Your task to perform on an android device: turn notification dots on Image 0: 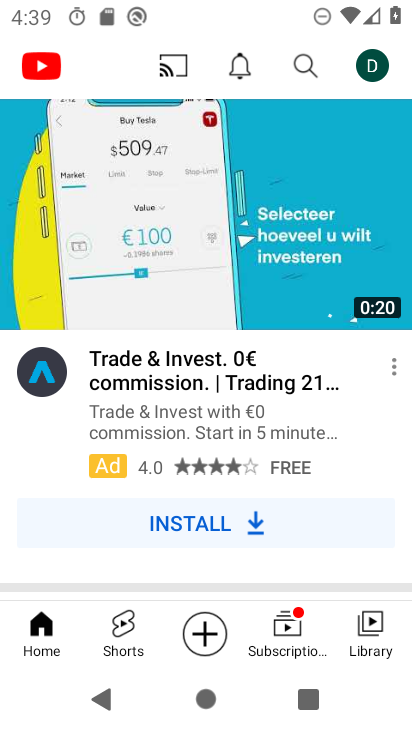
Step 0: press home button
Your task to perform on an android device: turn notification dots on Image 1: 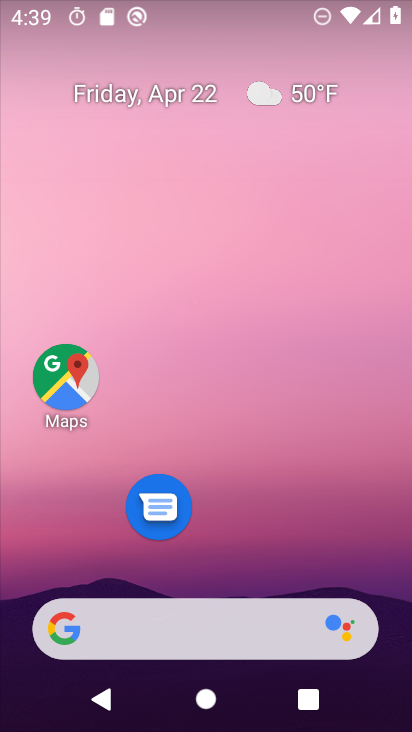
Step 1: drag from (136, 591) to (268, 61)
Your task to perform on an android device: turn notification dots on Image 2: 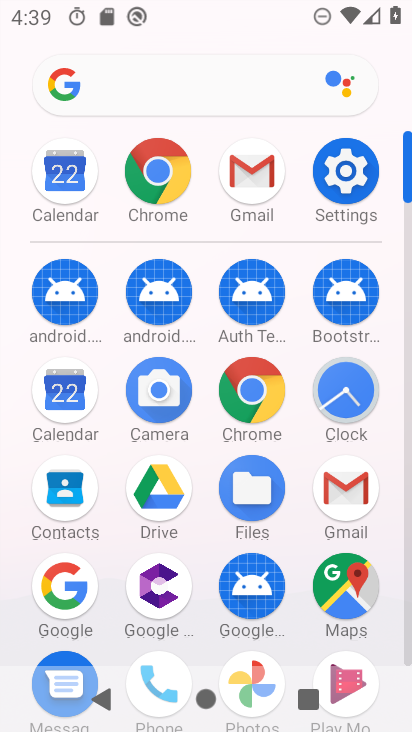
Step 2: click (329, 167)
Your task to perform on an android device: turn notification dots on Image 3: 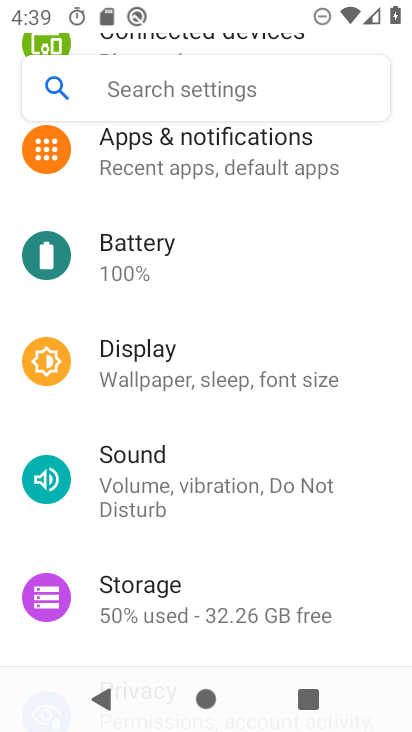
Step 3: click (213, 158)
Your task to perform on an android device: turn notification dots on Image 4: 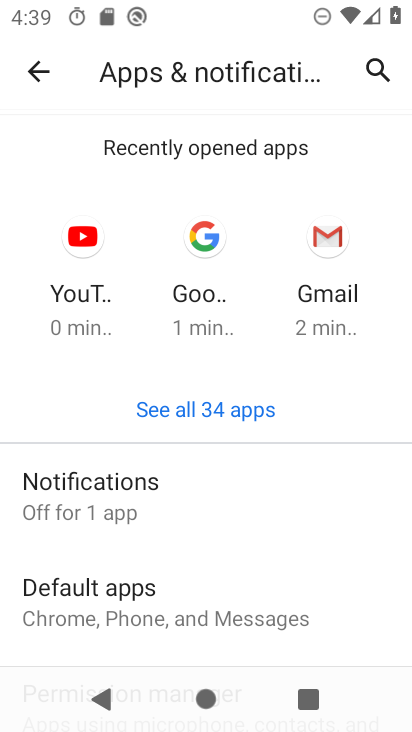
Step 4: click (176, 493)
Your task to perform on an android device: turn notification dots on Image 5: 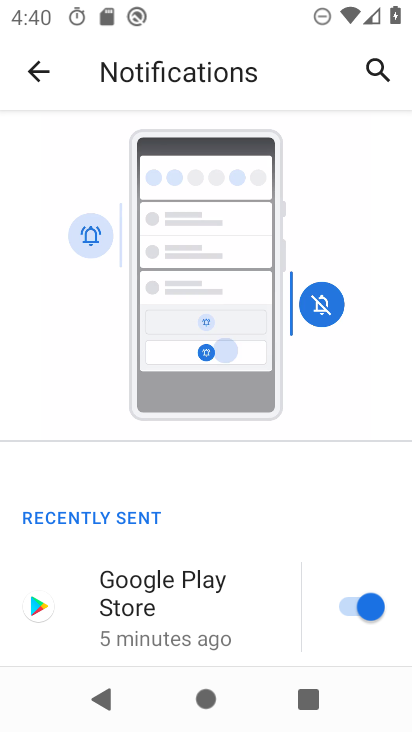
Step 5: drag from (174, 614) to (277, 111)
Your task to perform on an android device: turn notification dots on Image 6: 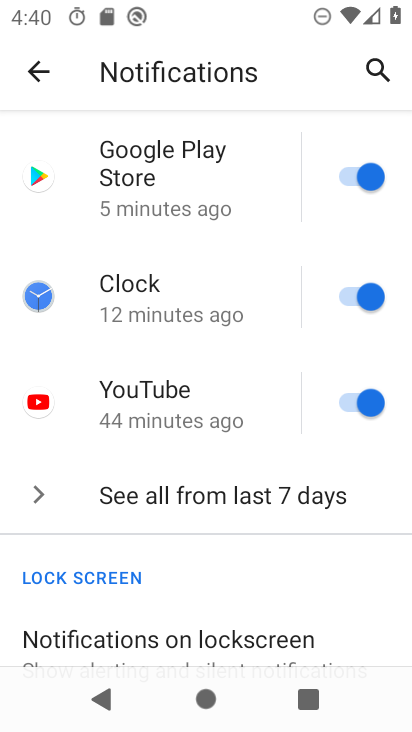
Step 6: drag from (195, 581) to (307, 122)
Your task to perform on an android device: turn notification dots on Image 7: 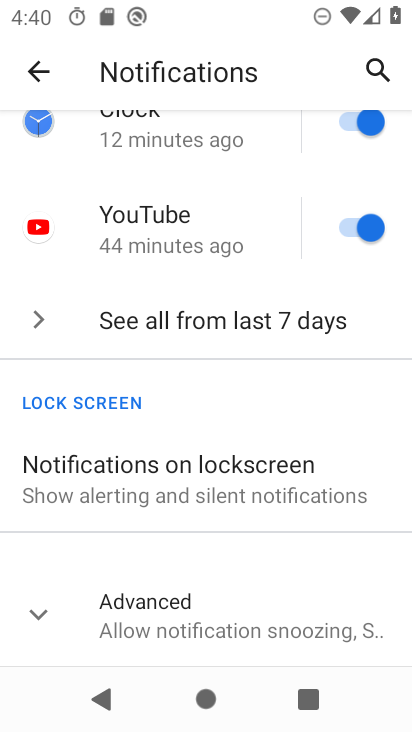
Step 7: click (181, 598)
Your task to perform on an android device: turn notification dots on Image 8: 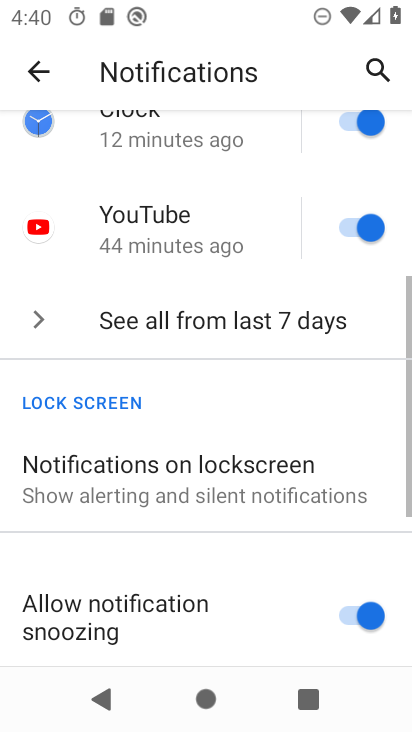
Step 8: drag from (209, 594) to (293, 143)
Your task to perform on an android device: turn notification dots on Image 9: 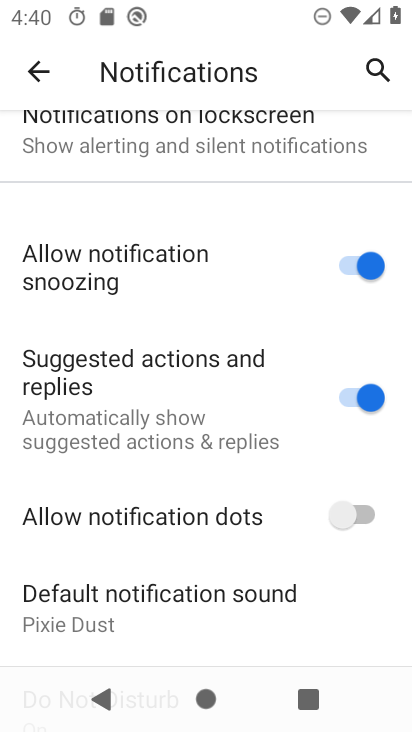
Step 9: click (355, 516)
Your task to perform on an android device: turn notification dots on Image 10: 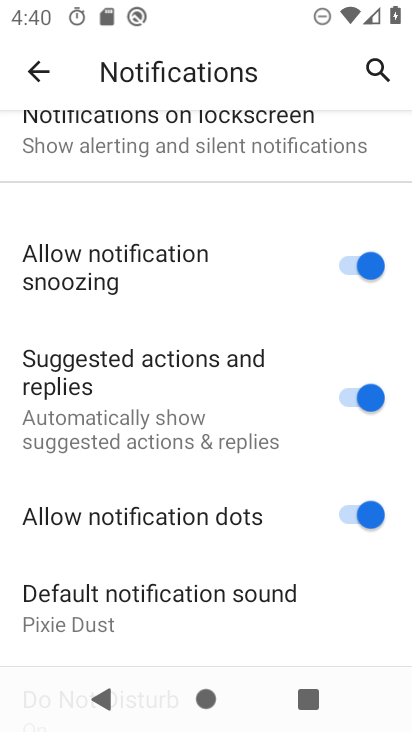
Step 10: task complete